Your task to perform on an android device: turn off airplane mode Image 0: 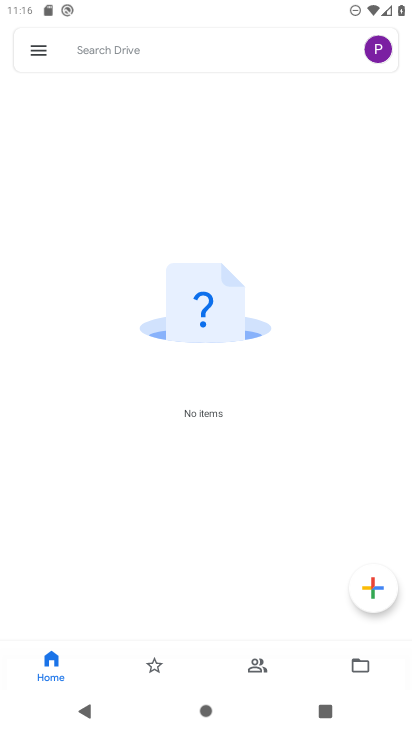
Step 0: press home button
Your task to perform on an android device: turn off airplane mode Image 1: 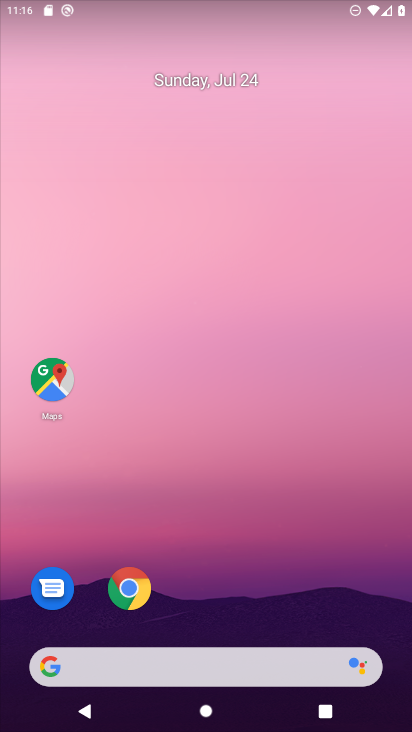
Step 1: drag from (242, 612) to (248, 96)
Your task to perform on an android device: turn off airplane mode Image 2: 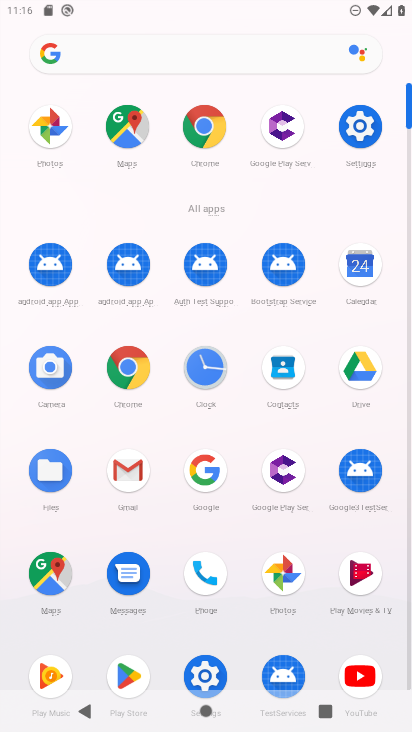
Step 2: click (362, 135)
Your task to perform on an android device: turn off airplane mode Image 3: 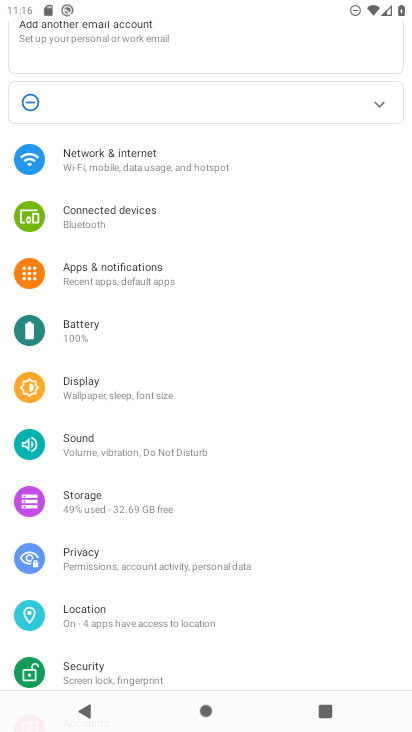
Step 3: click (165, 160)
Your task to perform on an android device: turn off airplane mode Image 4: 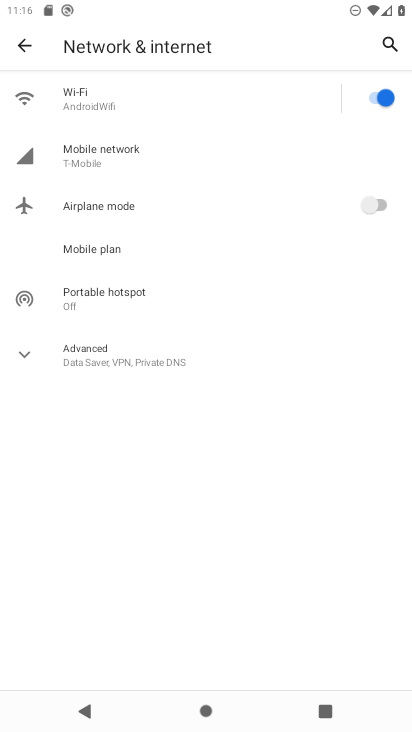
Step 4: task complete